Your task to perform on an android device: Open ESPN.com Image 0: 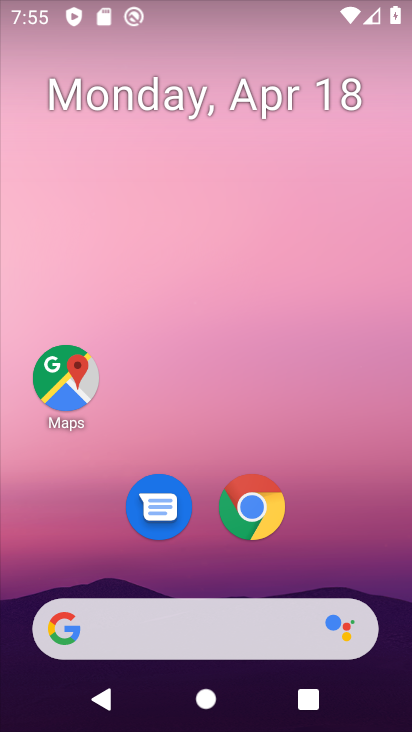
Step 0: click (300, 2)
Your task to perform on an android device: Open ESPN.com Image 1: 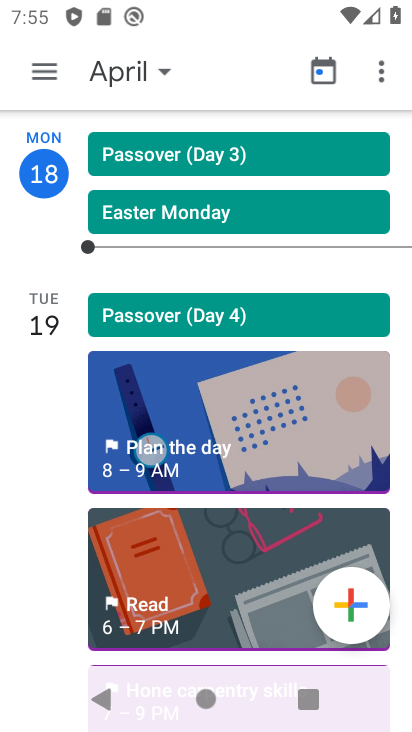
Step 1: press home button
Your task to perform on an android device: Open ESPN.com Image 2: 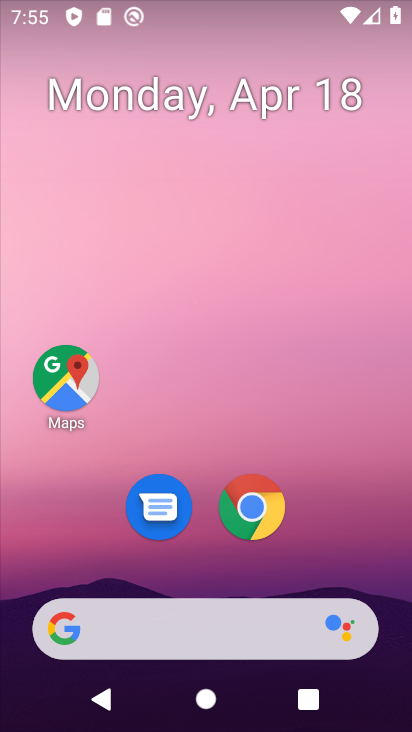
Step 2: click (213, 634)
Your task to perform on an android device: Open ESPN.com Image 3: 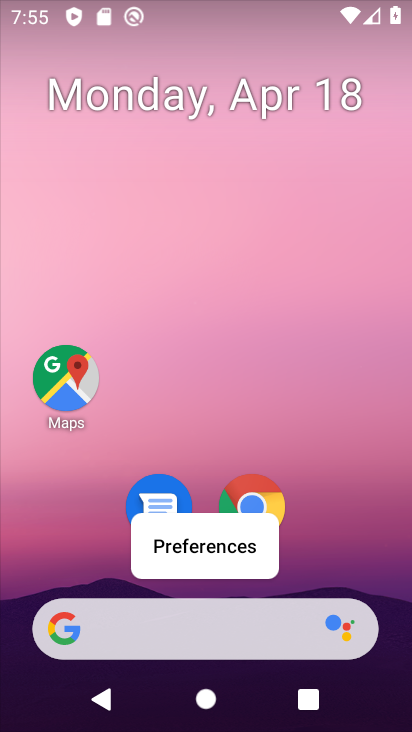
Step 3: click (214, 631)
Your task to perform on an android device: Open ESPN.com Image 4: 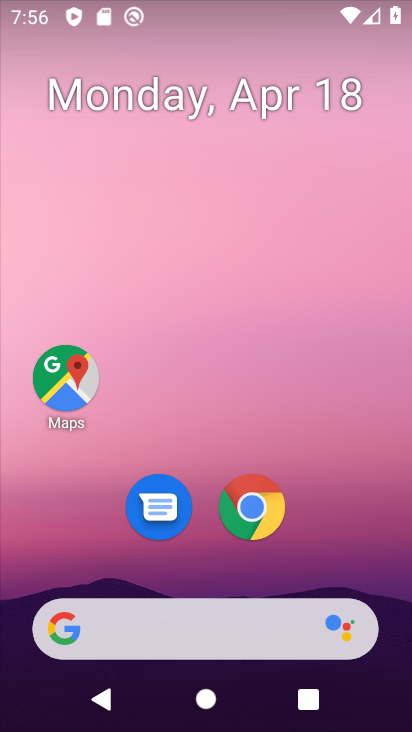
Step 4: click (257, 629)
Your task to perform on an android device: Open ESPN.com Image 5: 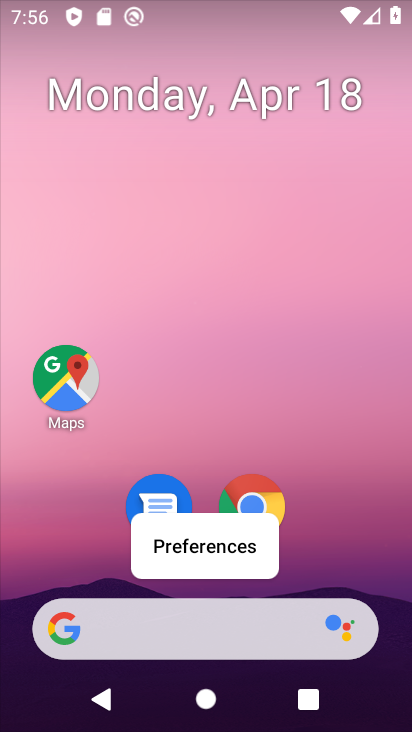
Step 5: click (130, 643)
Your task to perform on an android device: Open ESPN.com Image 6: 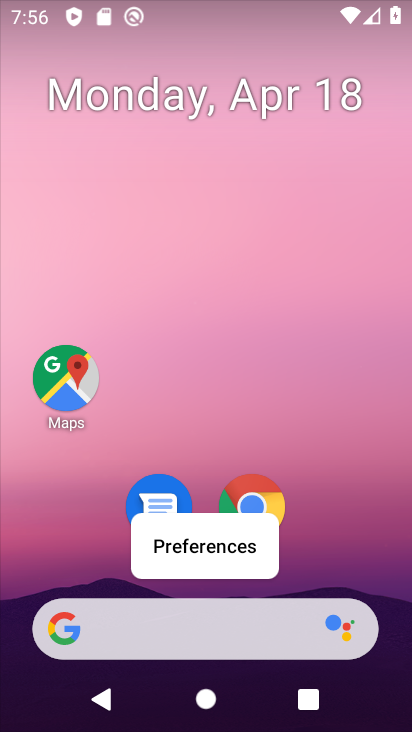
Step 6: click (76, 625)
Your task to perform on an android device: Open ESPN.com Image 7: 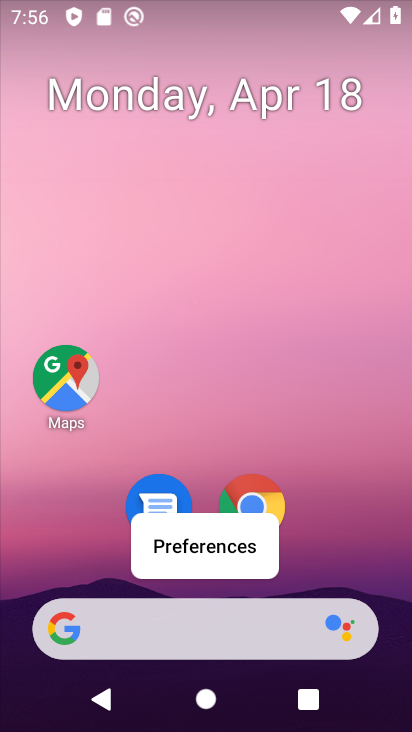
Step 7: click (99, 623)
Your task to perform on an android device: Open ESPN.com Image 8: 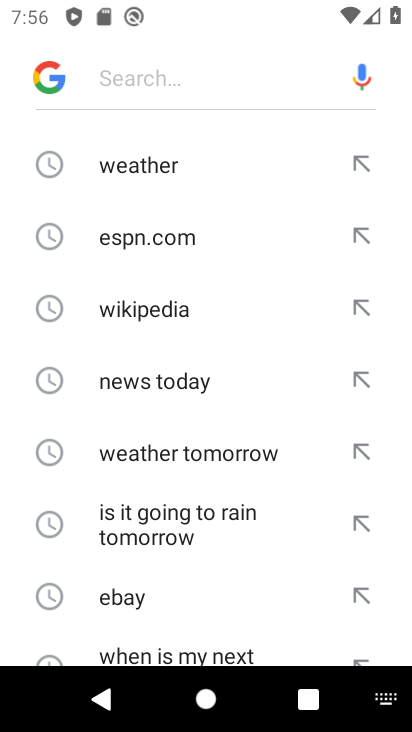
Step 8: type "ESPN.com"
Your task to perform on an android device: Open ESPN.com Image 9: 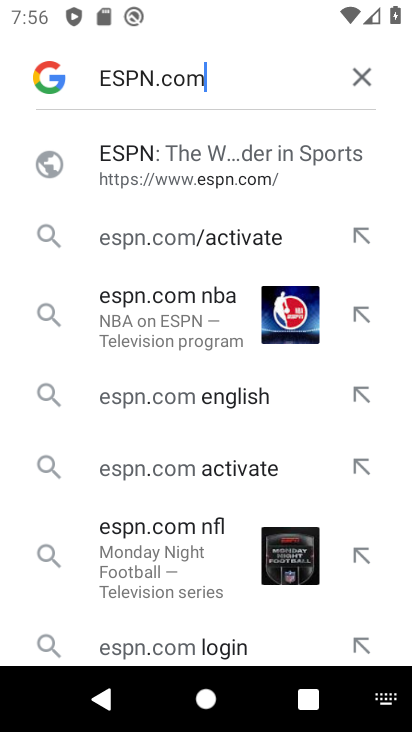
Step 9: click (193, 175)
Your task to perform on an android device: Open ESPN.com Image 10: 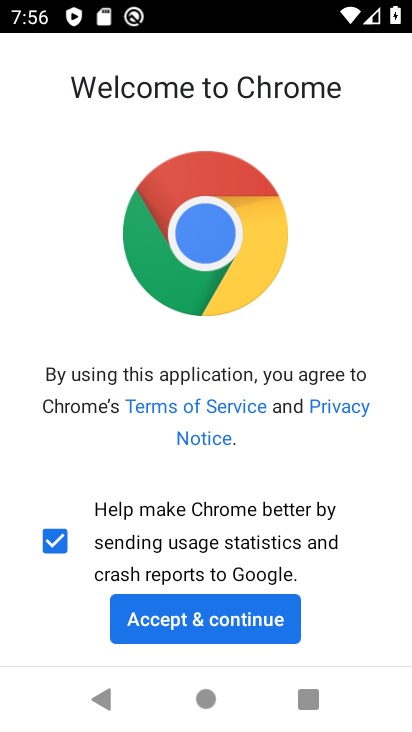
Step 10: click (264, 610)
Your task to perform on an android device: Open ESPN.com Image 11: 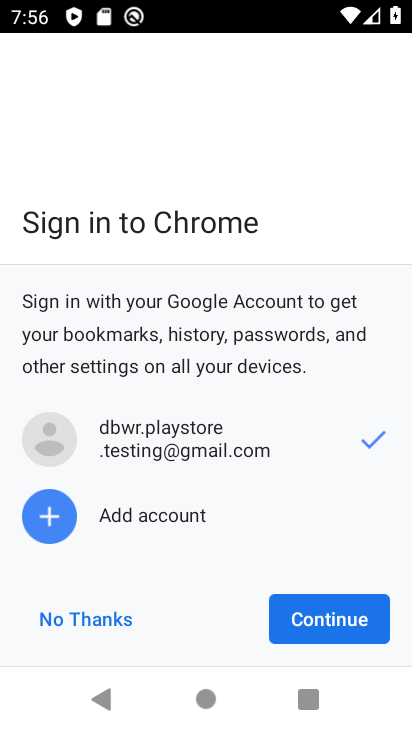
Step 11: click (297, 610)
Your task to perform on an android device: Open ESPN.com Image 12: 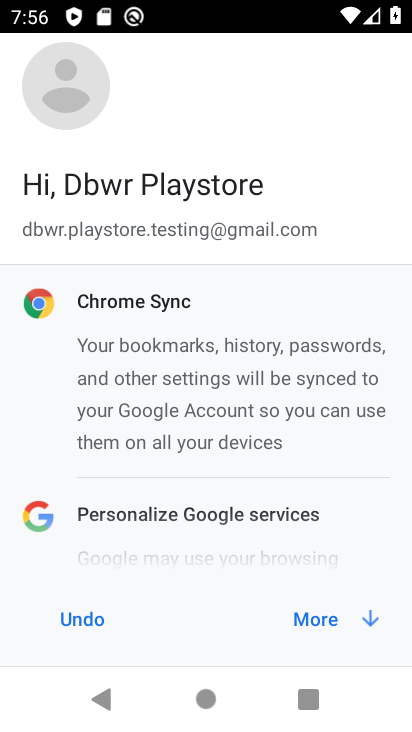
Step 12: click (300, 614)
Your task to perform on an android device: Open ESPN.com Image 13: 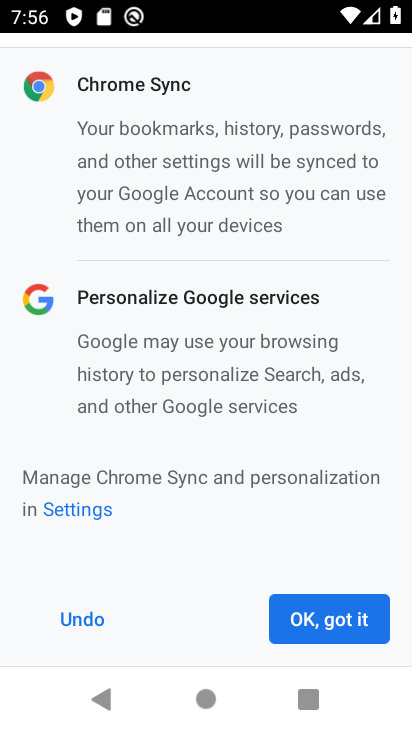
Step 13: click (305, 630)
Your task to perform on an android device: Open ESPN.com Image 14: 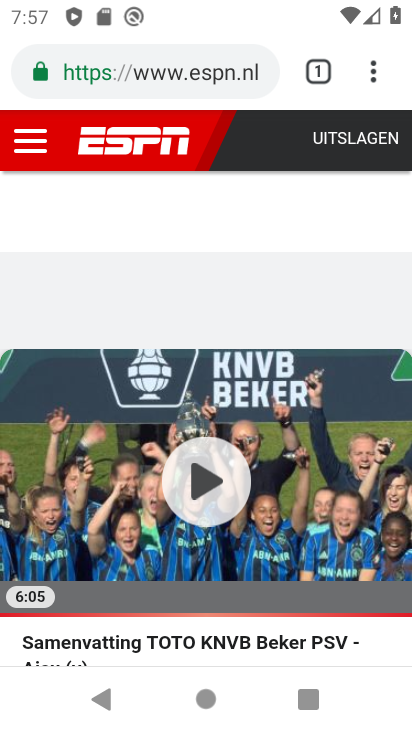
Step 14: task complete